Your task to perform on an android device: What's the weather going to be tomorrow? Image 0: 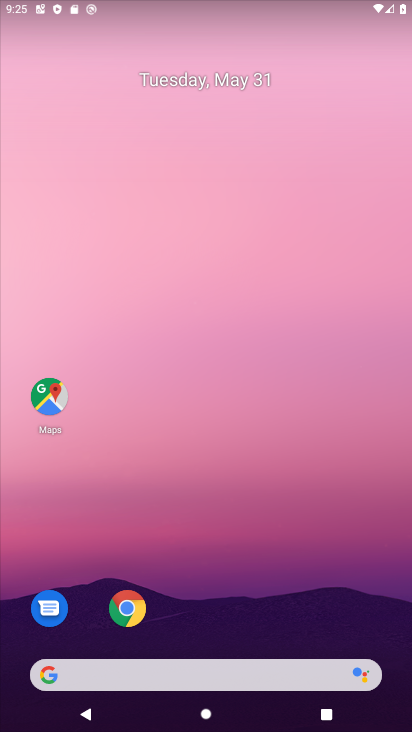
Step 0: click (226, 681)
Your task to perform on an android device: What's the weather going to be tomorrow? Image 1: 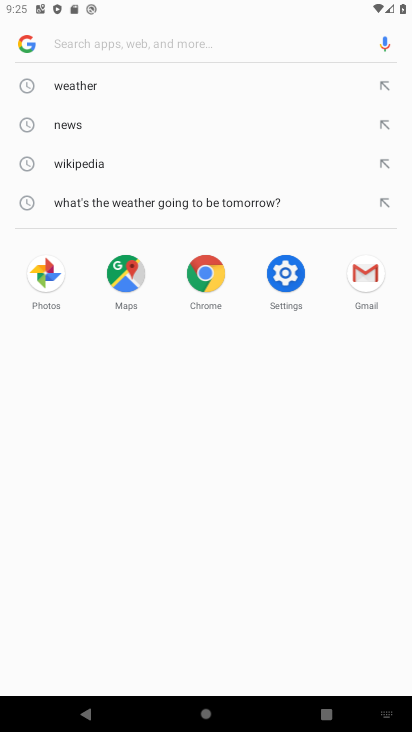
Step 1: click (111, 91)
Your task to perform on an android device: What's the weather going to be tomorrow? Image 2: 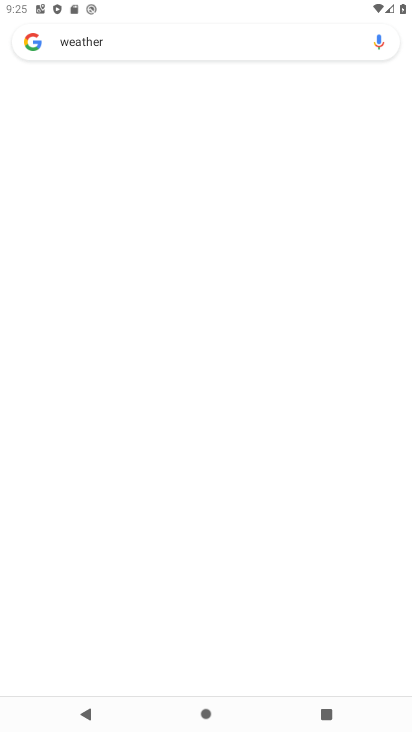
Step 2: task complete